Your task to perform on an android device: toggle priority inbox in the gmail app Image 0: 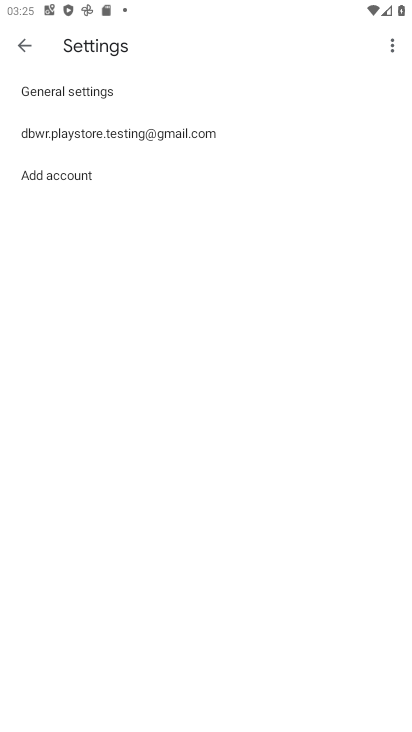
Step 0: click (96, 125)
Your task to perform on an android device: toggle priority inbox in the gmail app Image 1: 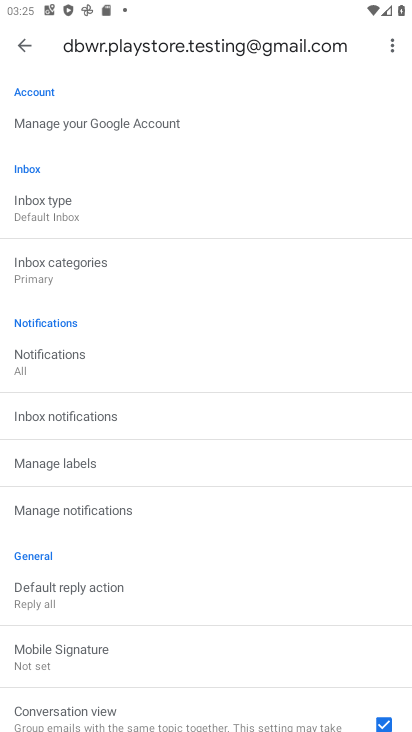
Step 1: click (45, 208)
Your task to perform on an android device: toggle priority inbox in the gmail app Image 2: 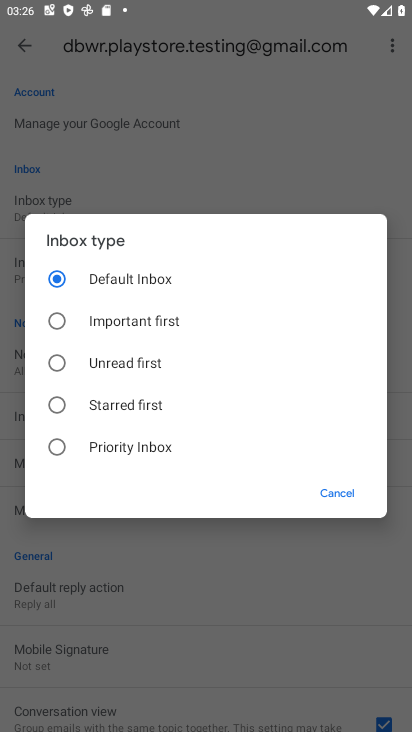
Step 2: click (57, 451)
Your task to perform on an android device: toggle priority inbox in the gmail app Image 3: 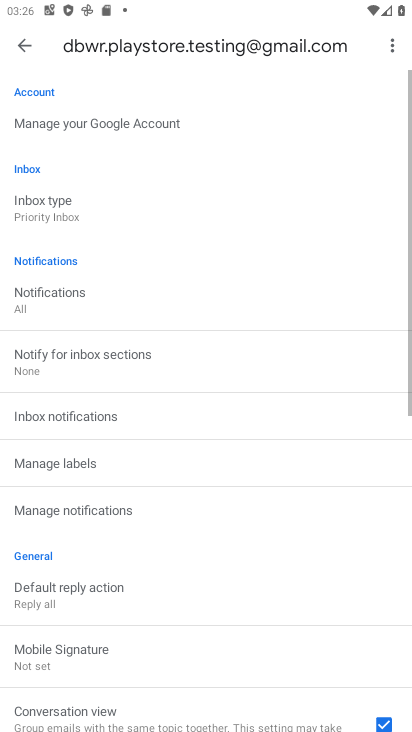
Step 3: task complete